Your task to perform on an android device: check storage Image 0: 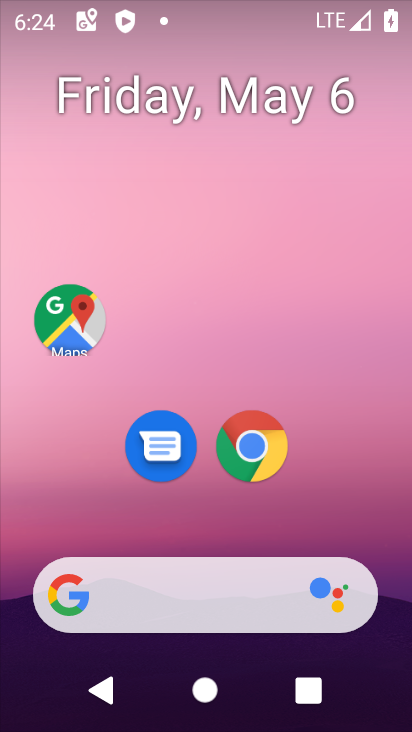
Step 0: drag from (307, 501) to (281, 113)
Your task to perform on an android device: check storage Image 1: 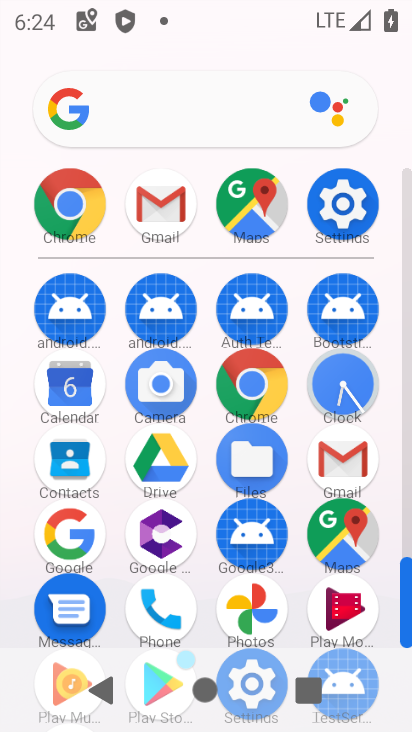
Step 1: click (331, 224)
Your task to perform on an android device: check storage Image 2: 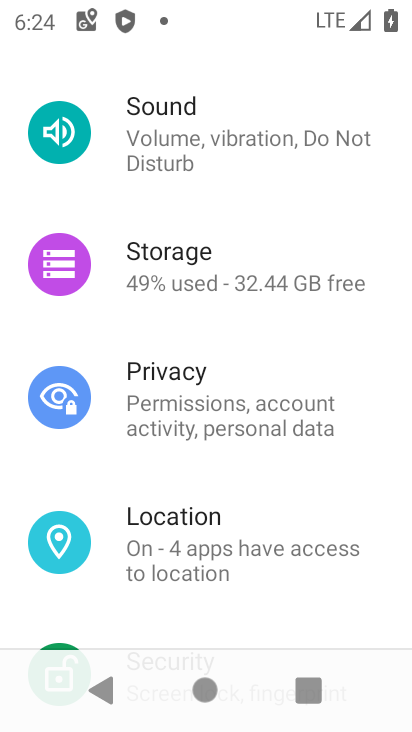
Step 2: drag from (253, 260) to (267, 582)
Your task to perform on an android device: check storage Image 3: 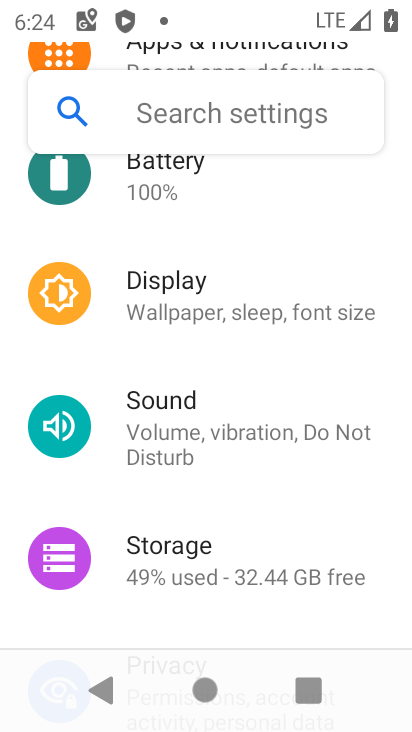
Step 3: drag from (220, 271) to (182, 643)
Your task to perform on an android device: check storage Image 4: 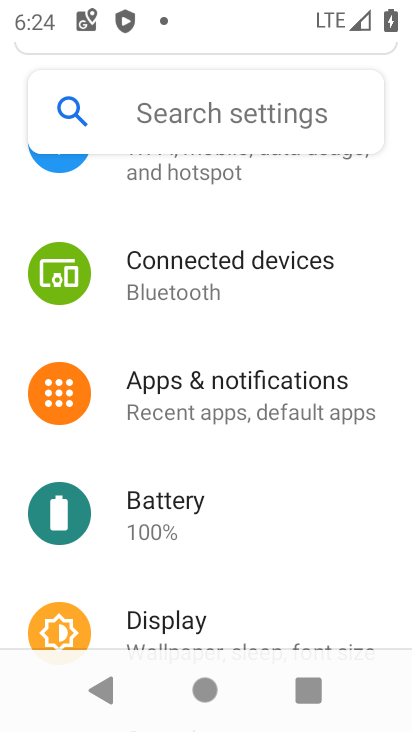
Step 4: drag from (217, 595) to (225, 212)
Your task to perform on an android device: check storage Image 5: 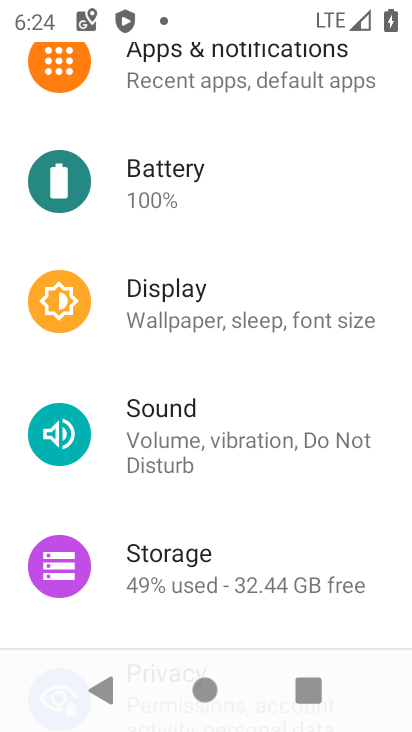
Step 5: click (207, 421)
Your task to perform on an android device: check storage Image 6: 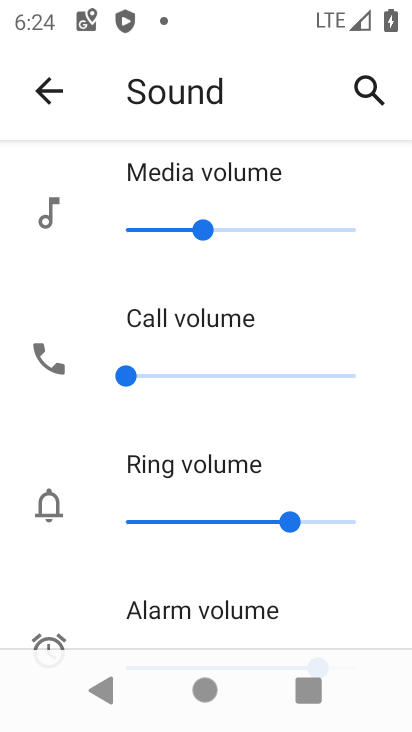
Step 6: press back button
Your task to perform on an android device: check storage Image 7: 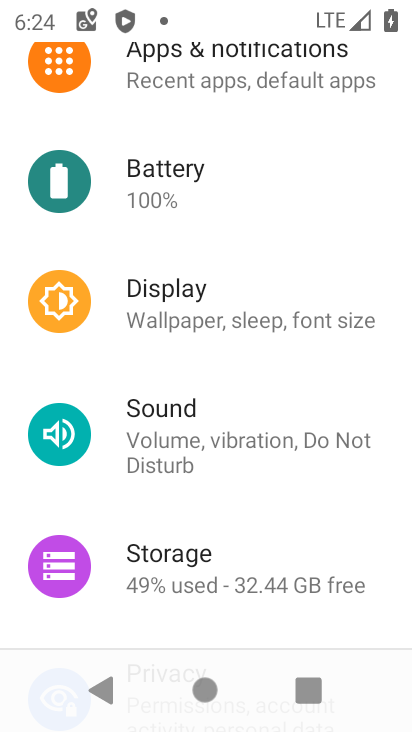
Step 7: drag from (282, 576) to (264, 264)
Your task to perform on an android device: check storage Image 8: 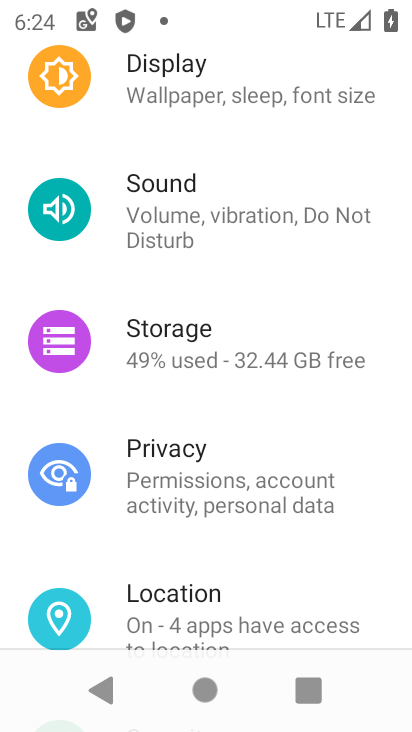
Step 8: click (201, 341)
Your task to perform on an android device: check storage Image 9: 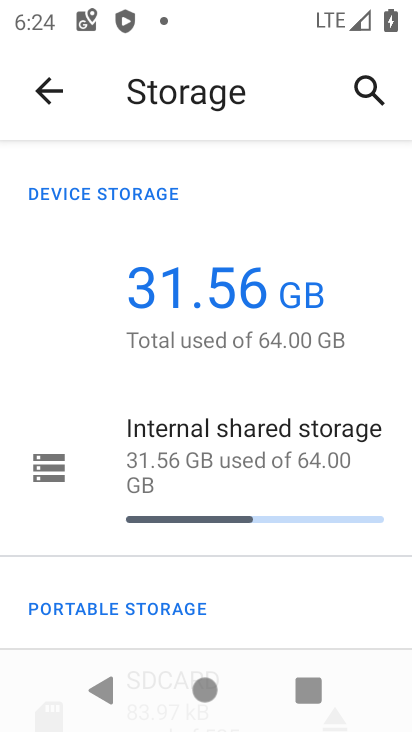
Step 9: task complete